Your task to perform on an android device: Open Wikipedia Image 0: 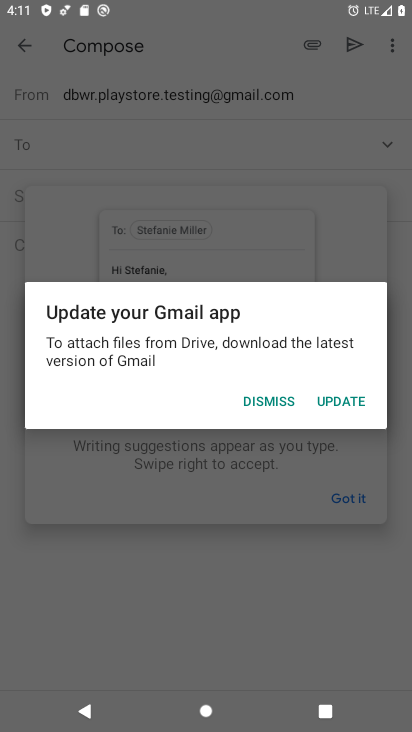
Step 0: press home button
Your task to perform on an android device: Open Wikipedia Image 1: 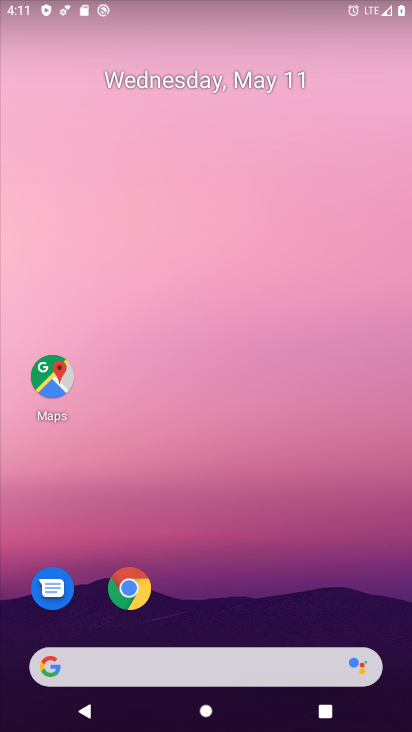
Step 1: drag from (245, 602) to (254, 199)
Your task to perform on an android device: Open Wikipedia Image 2: 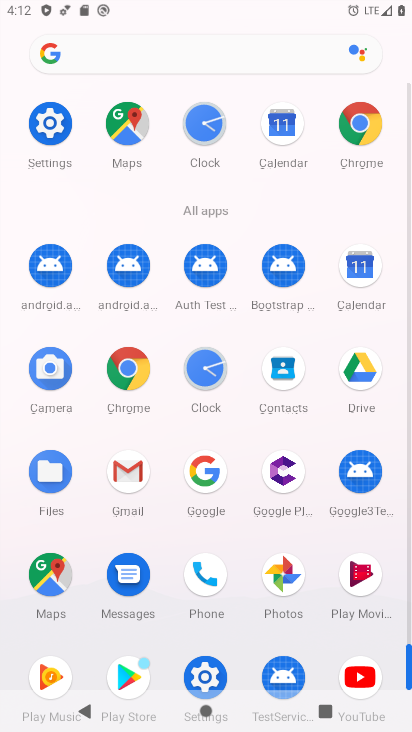
Step 2: click (349, 136)
Your task to perform on an android device: Open Wikipedia Image 3: 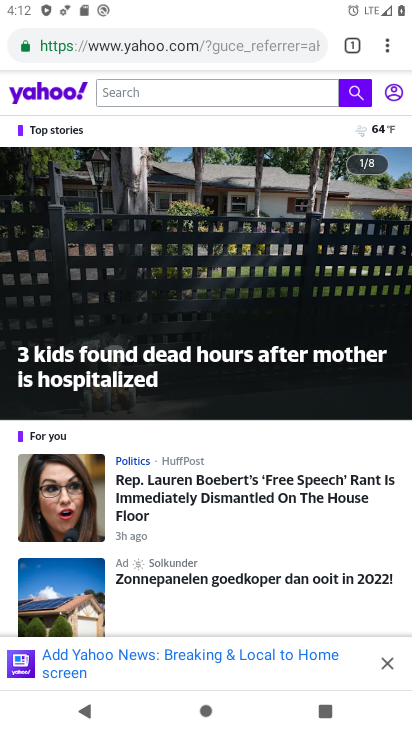
Step 3: click (295, 44)
Your task to perform on an android device: Open Wikipedia Image 4: 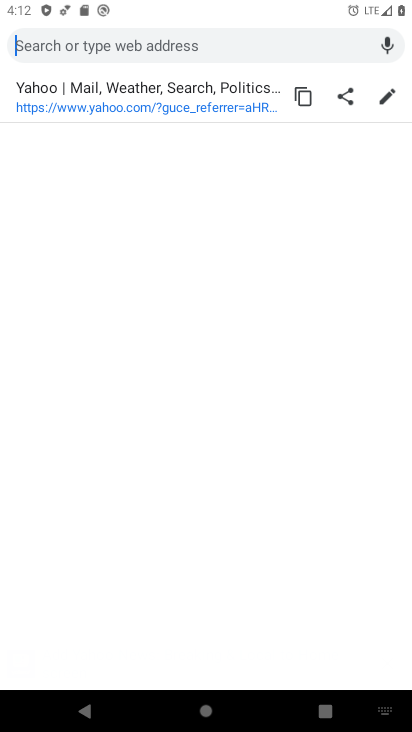
Step 4: type "wkipedia"
Your task to perform on an android device: Open Wikipedia Image 5: 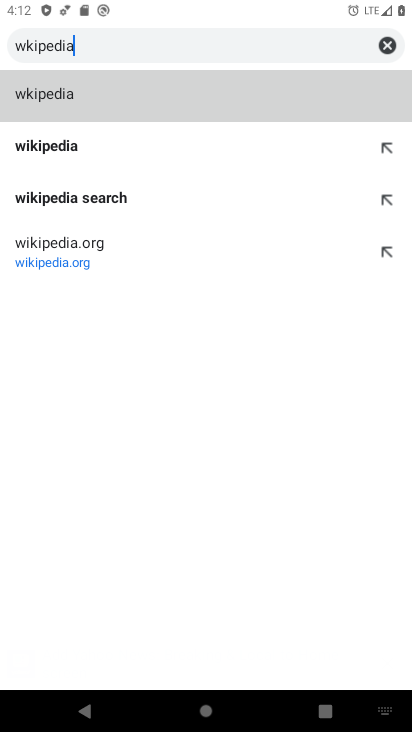
Step 5: click (51, 141)
Your task to perform on an android device: Open Wikipedia Image 6: 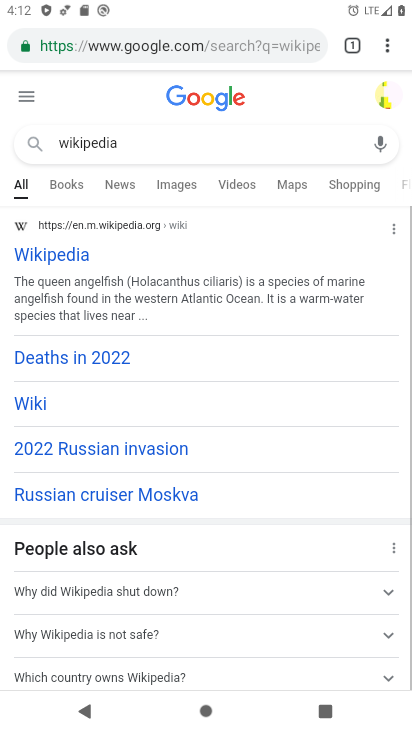
Step 6: drag from (140, 635) to (182, 215)
Your task to perform on an android device: Open Wikipedia Image 7: 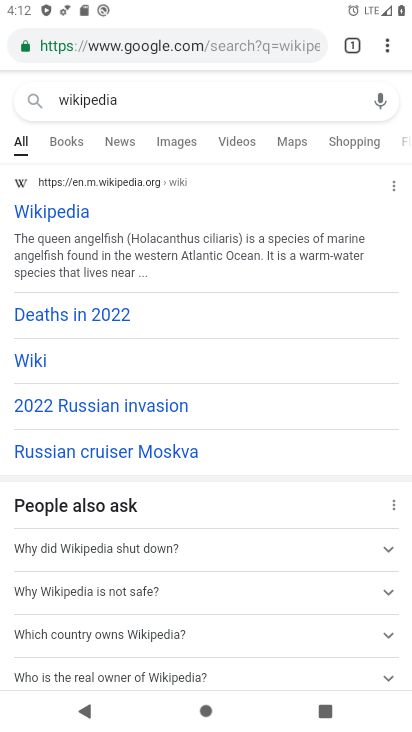
Step 7: click (40, 232)
Your task to perform on an android device: Open Wikipedia Image 8: 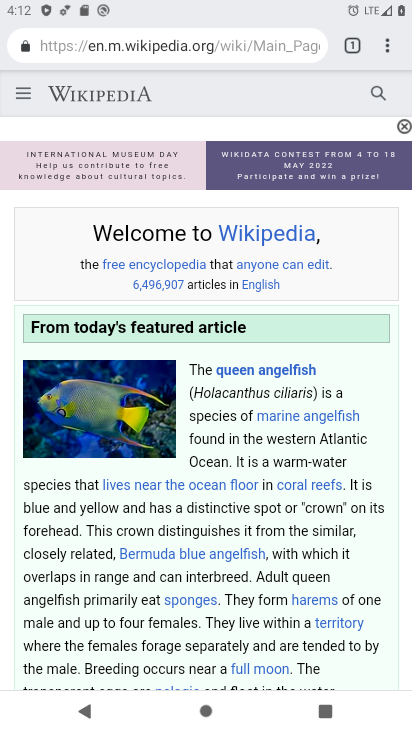
Step 8: task complete